Your task to perform on an android device: Open network settings Image 0: 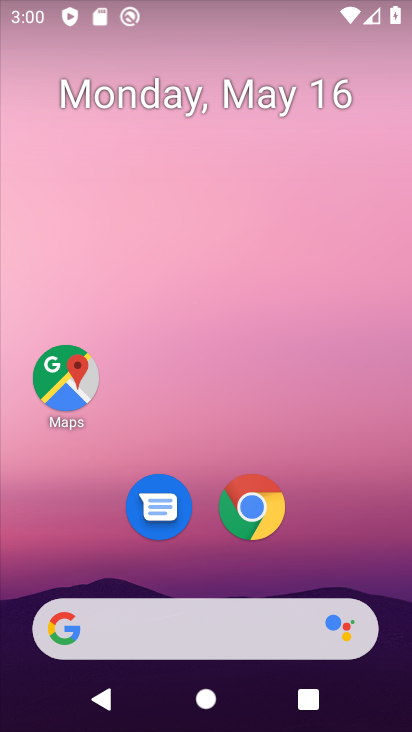
Step 0: drag from (337, 518) to (400, 124)
Your task to perform on an android device: Open network settings Image 1: 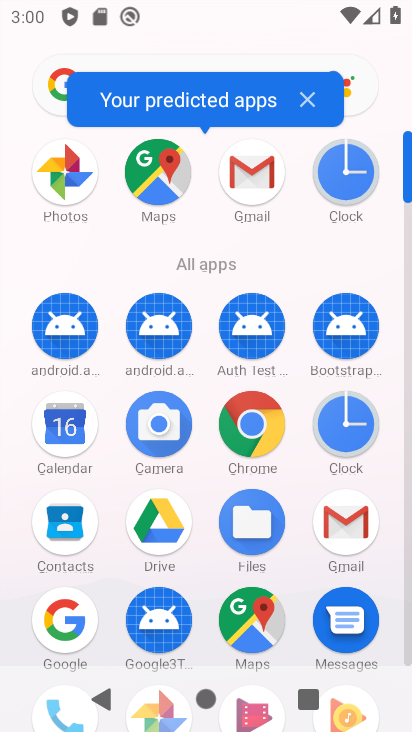
Step 1: drag from (389, 570) to (412, 309)
Your task to perform on an android device: Open network settings Image 2: 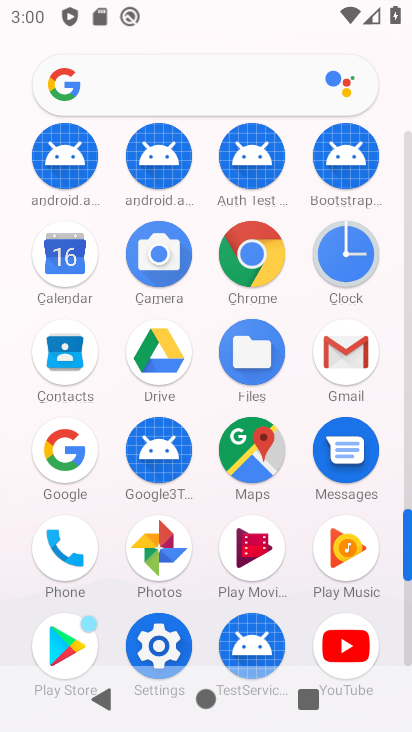
Step 2: click (172, 641)
Your task to perform on an android device: Open network settings Image 3: 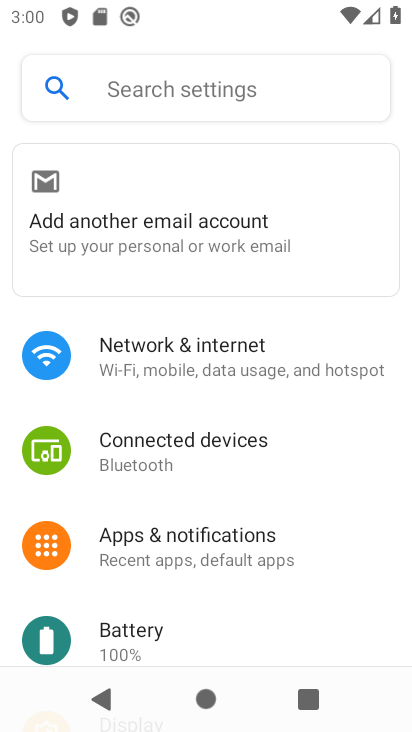
Step 3: click (207, 368)
Your task to perform on an android device: Open network settings Image 4: 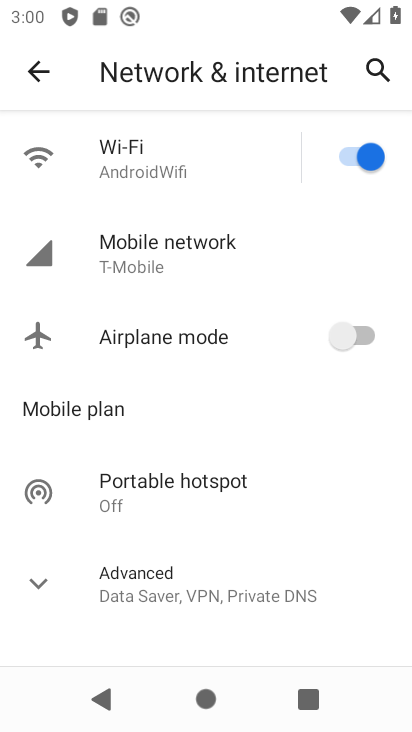
Step 4: click (165, 251)
Your task to perform on an android device: Open network settings Image 5: 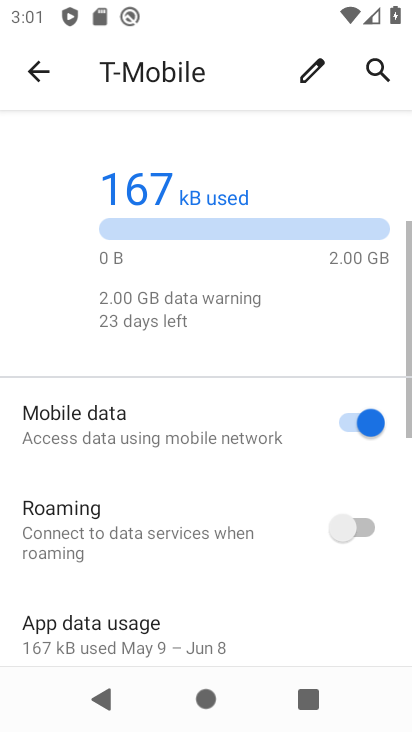
Step 5: task complete